Your task to perform on an android device: turn on the 12-hour format for clock Image 0: 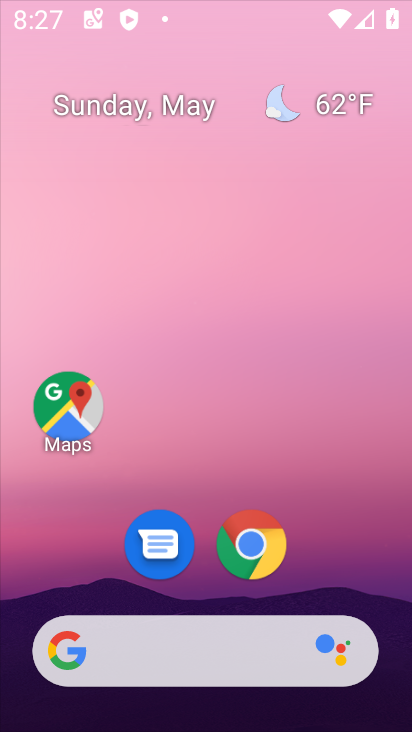
Step 0: press home button
Your task to perform on an android device: turn on the 12-hour format for clock Image 1: 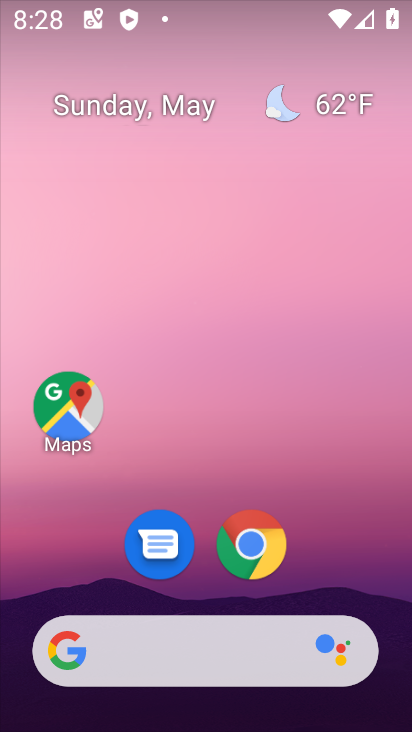
Step 1: drag from (313, 580) to (316, 144)
Your task to perform on an android device: turn on the 12-hour format for clock Image 2: 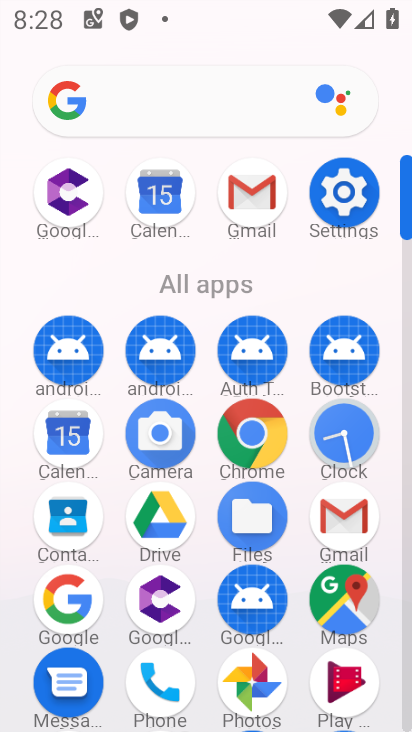
Step 2: click (348, 448)
Your task to perform on an android device: turn on the 12-hour format for clock Image 3: 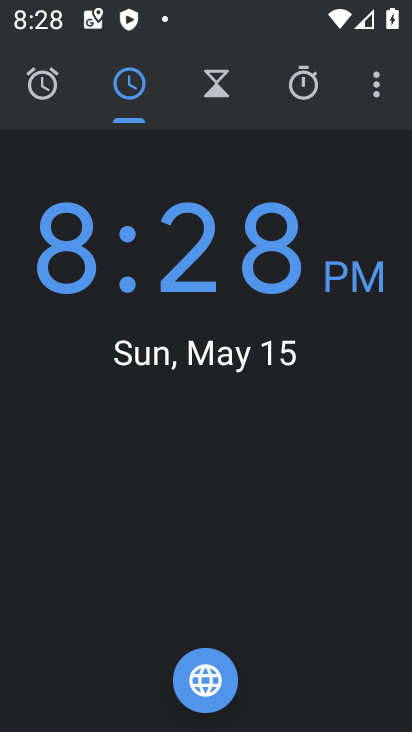
Step 3: click (375, 82)
Your task to perform on an android device: turn on the 12-hour format for clock Image 4: 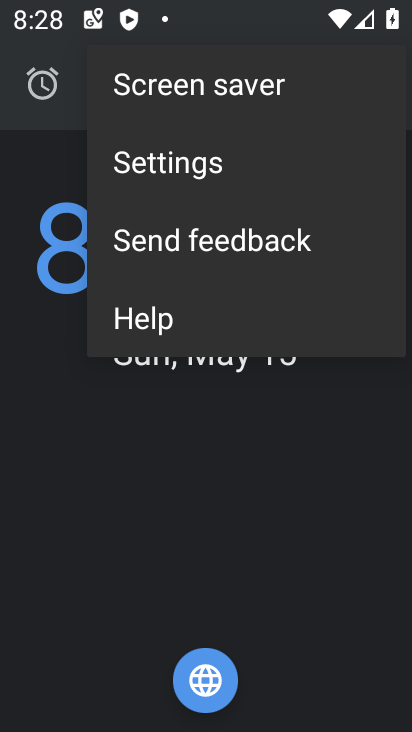
Step 4: click (220, 162)
Your task to perform on an android device: turn on the 12-hour format for clock Image 5: 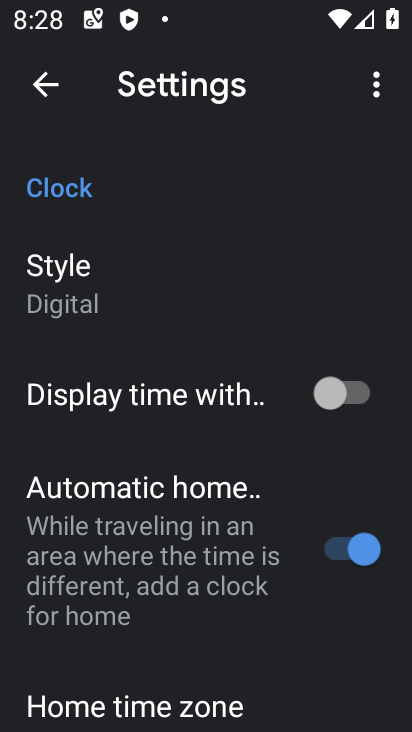
Step 5: drag from (200, 666) to (170, 409)
Your task to perform on an android device: turn on the 12-hour format for clock Image 6: 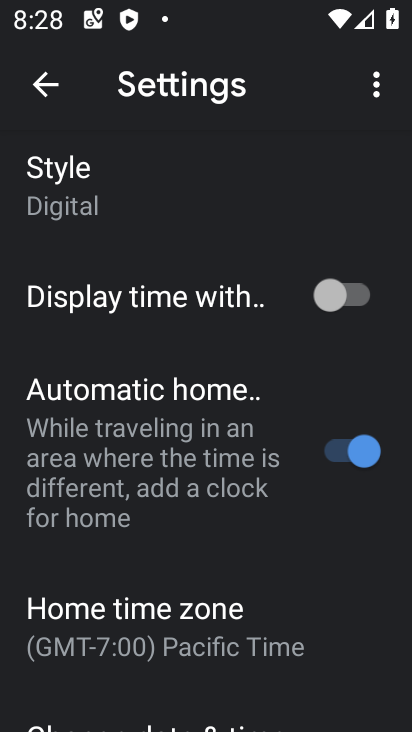
Step 6: click (149, 459)
Your task to perform on an android device: turn on the 12-hour format for clock Image 7: 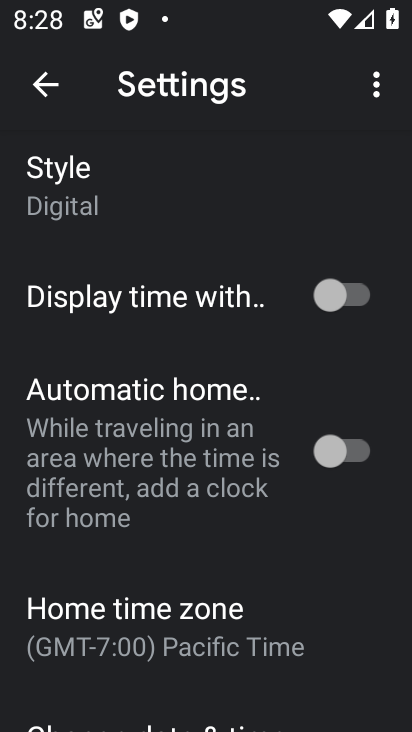
Step 7: drag from (198, 698) to (206, 384)
Your task to perform on an android device: turn on the 12-hour format for clock Image 8: 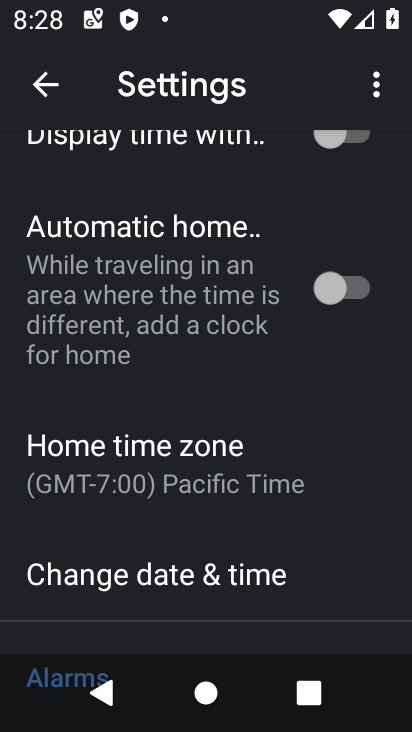
Step 8: click (162, 576)
Your task to perform on an android device: turn on the 12-hour format for clock Image 9: 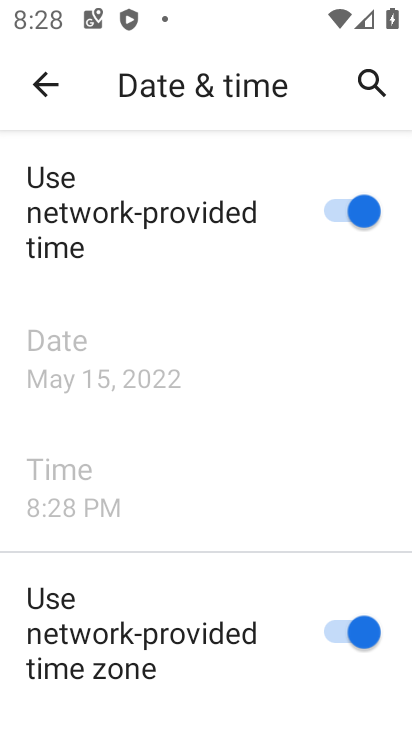
Step 9: task complete